Your task to perform on an android device: turn on javascript in the chrome app Image 0: 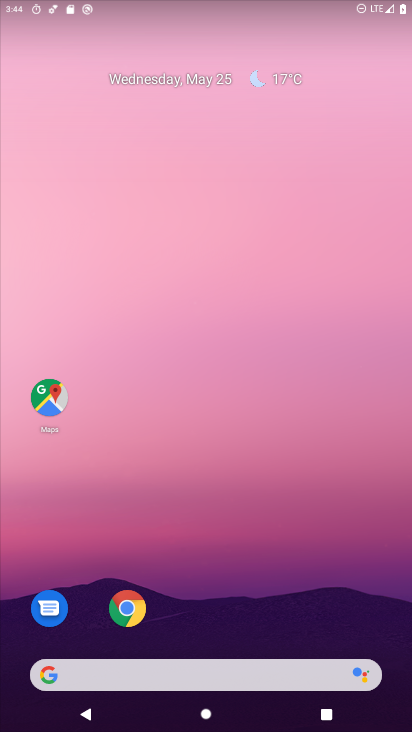
Step 0: click (127, 618)
Your task to perform on an android device: turn on javascript in the chrome app Image 1: 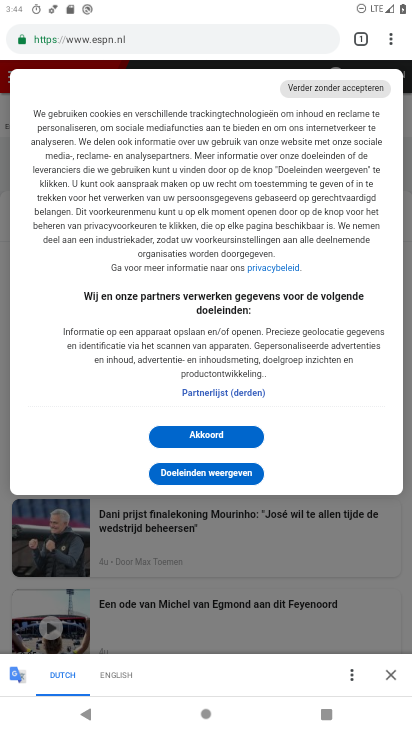
Step 1: drag from (395, 35) to (262, 487)
Your task to perform on an android device: turn on javascript in the chrome app Image 2: 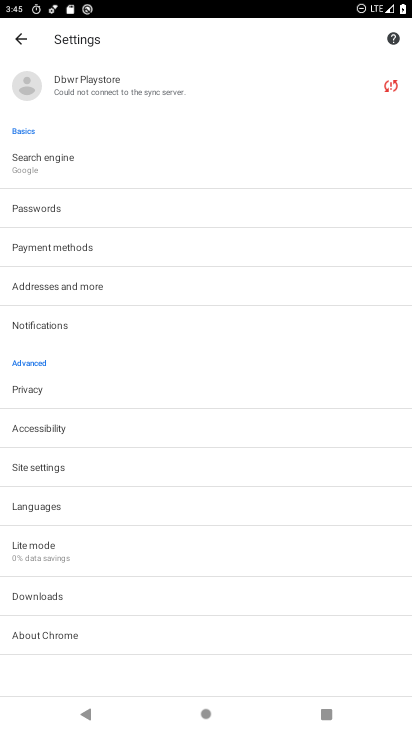
Step 2: click (41, 464)
Your task to perform on an android device: turn on javascript in the chrome app Image 3: 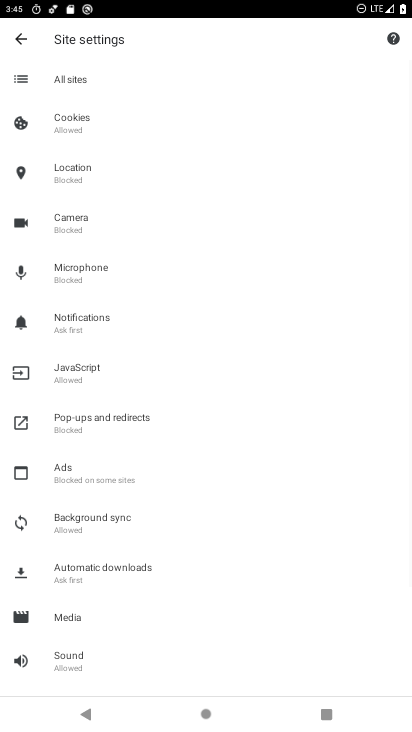
Step 3: click (121, 372)
Your task to perform on an android device: turn on javascript in the chrome app Image 4: 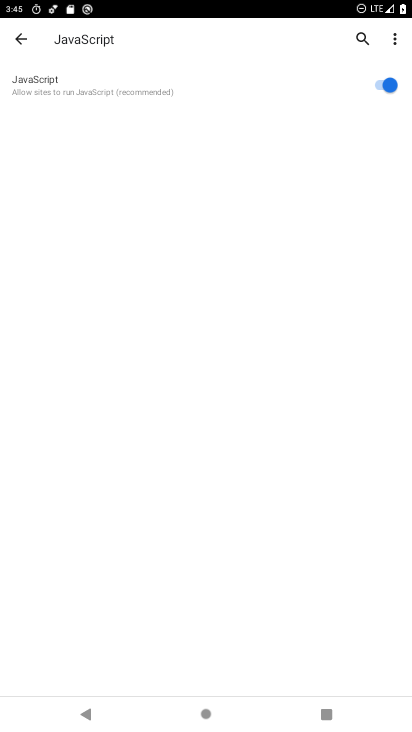
Step 4: task complete